Your task to perform on an android device: turn on data saver in the chrome app Image 0: 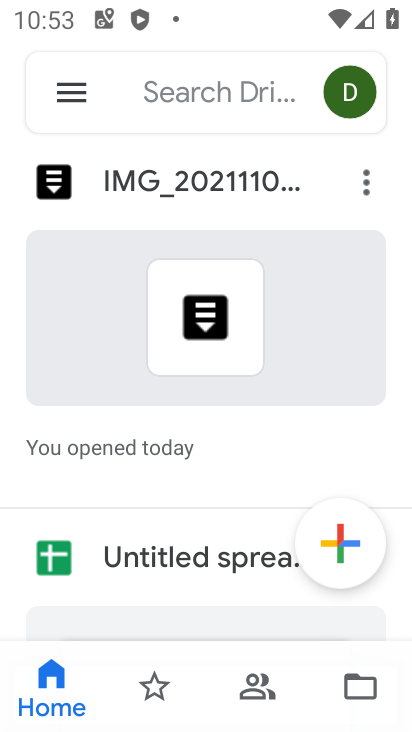
Step 0: press home button
Your task to perform on an android device: turn on data saver in the chrome app Image 1: 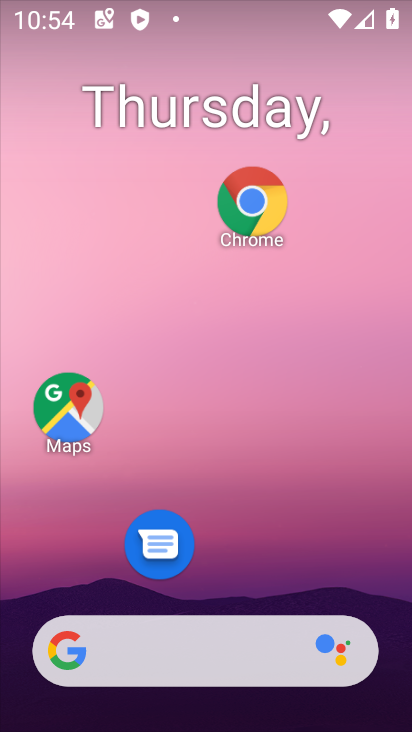
Step 1: click (250, 196)
Your task to perform on an android device: turn on data saver in the chrome app Image 2: 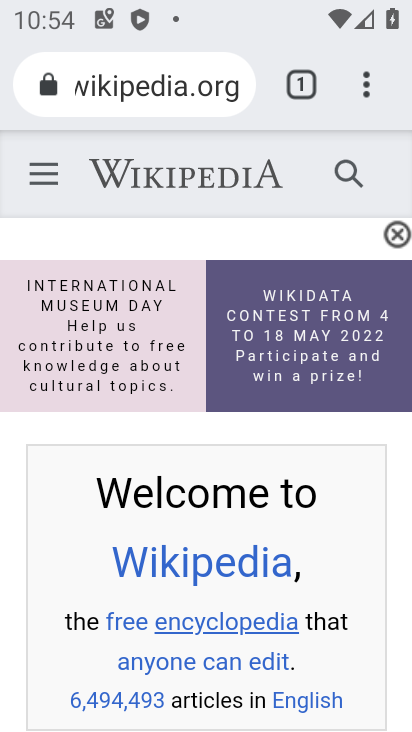
Step 2: click (369, 90)
Your task to perform on an android device: turn on data saver in the chrome app Image 3: 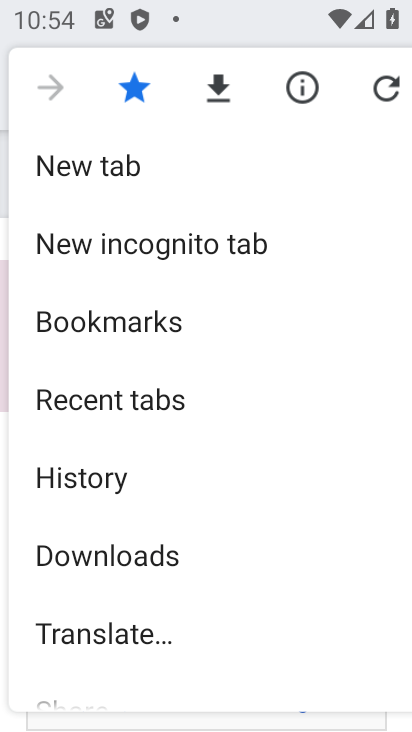
Step 3: drag from (210, 596) to (223, 5)
Your task to perform on an android device: turn on data saver in the chrome app Image 4: 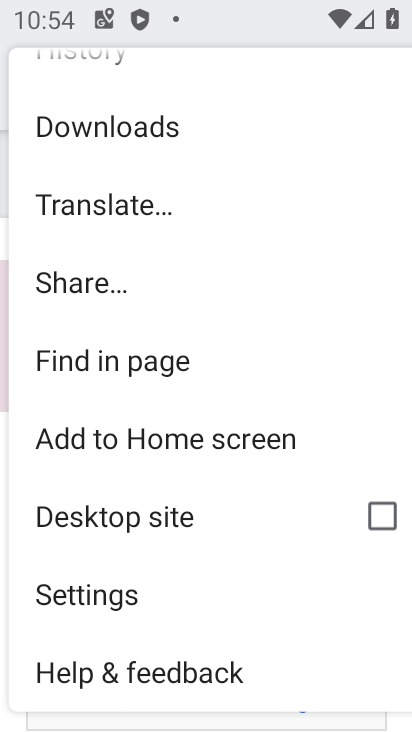
Step 4: click (147, 589)
Your task to perform on an android device: turn on data saver in the chrome app Image 5: 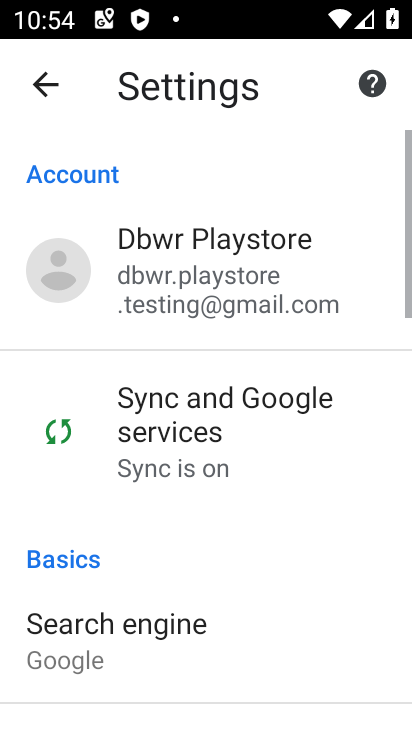
Step 5: drag from (251, 581) to (302, 13)
Your task to perform on an android device: turn on data saver in the chrome app Image 6: 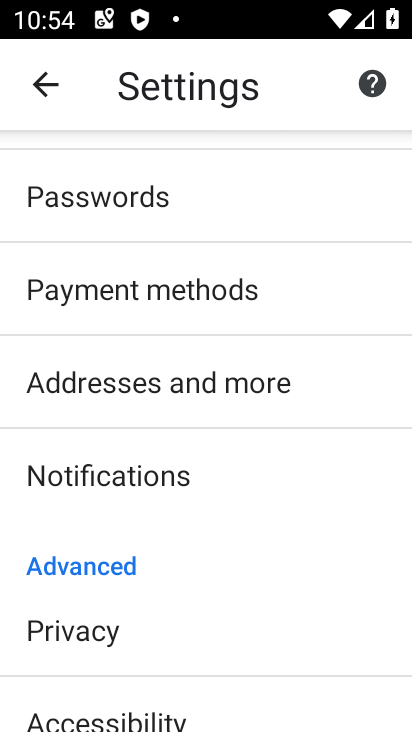
Step 6: drag from (195, 628) to (241, 44)
Your task to perform on an android device: turn on data saver in the chrome app Image 7: 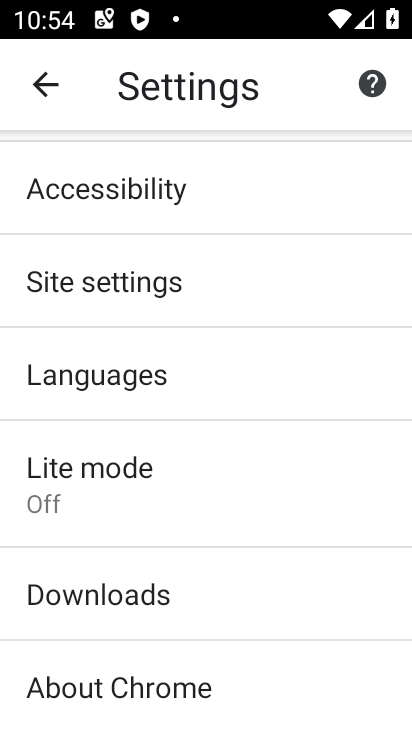
Step 7: click (121, 507)
Your task to perform on an android device: turn on data saver in the chrome app Image 8: 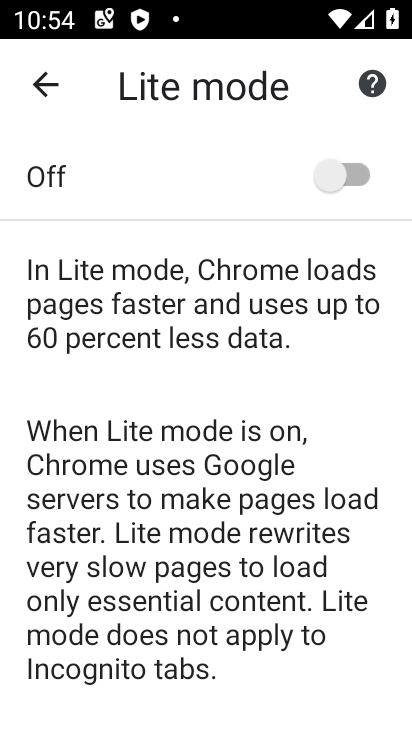
Step 8: click (359, 168)
Your task to perform on an android device: turn on data saver in the chrome app Image 9: 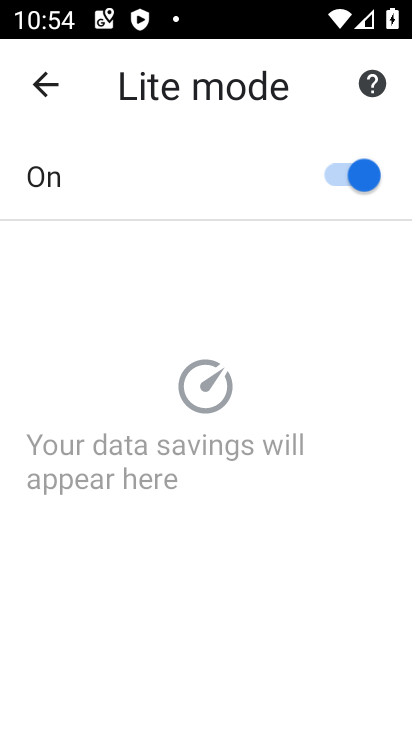
Step 9: task complete